Your task to perform on an android device: toggle data saver in the chrome app Image 0: 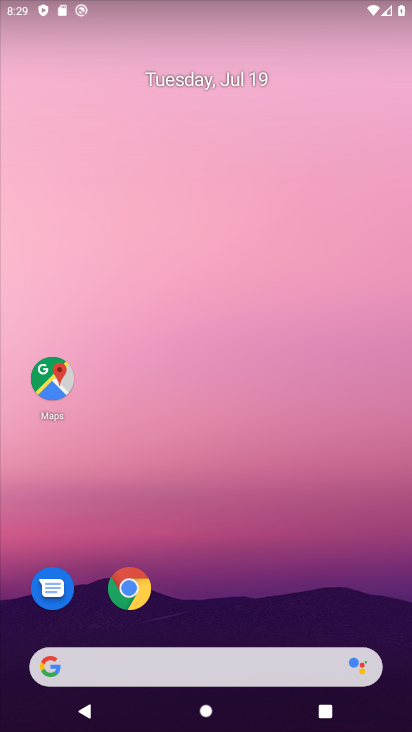
Step 0: drag from (303, 594) to (342, 192)
Your task to perform on an android device: toggle data saver in the chrome app Image 1: 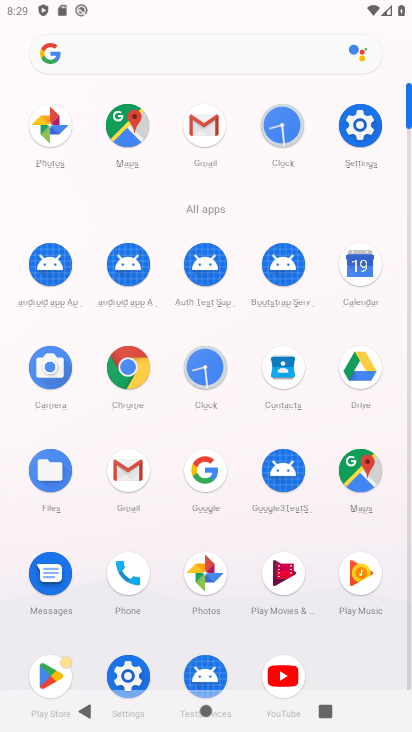
Step 1: click (139, 361)
Your task to perform on an android device: toggle data saver in the chrome app Image 2: 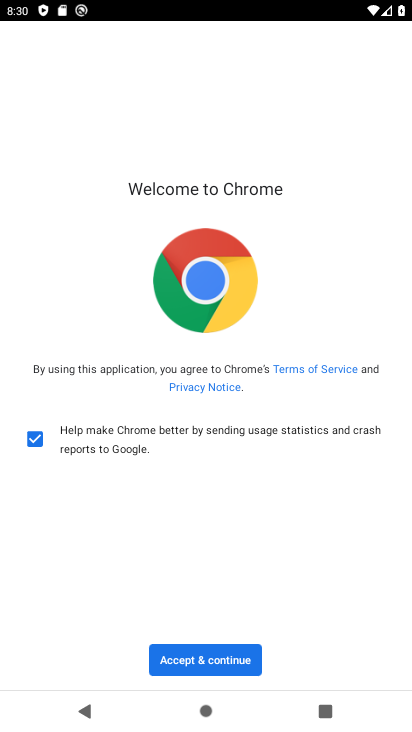
Step 2: click (228, 656)
Your task to perform on an android device: toggle data saver in the chrome app Image 3: 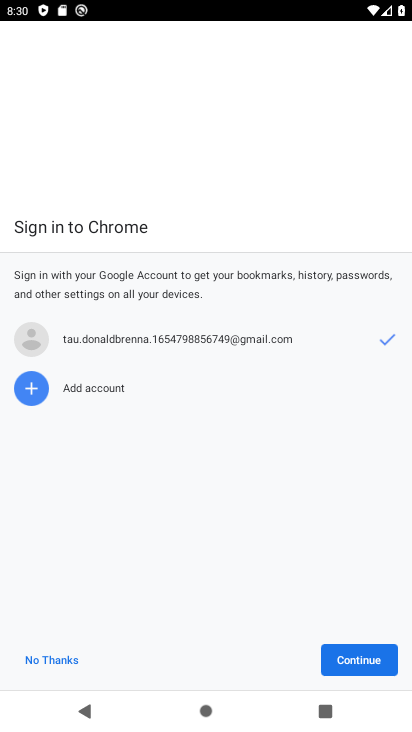
Step 3: click (47, 653)
Your task to perform on an android device: toggle data saver in the chrome app Image 4: 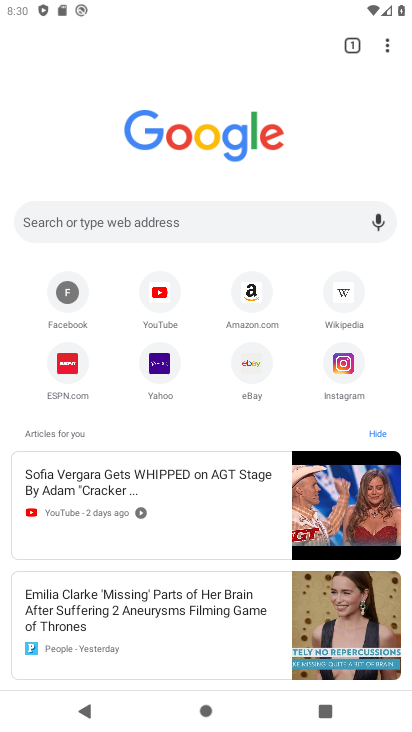
Step 4: drag from (384, 43) to (209, 379)
Your task to perform on an android device: toggle data saver in the chrome app Image 5: 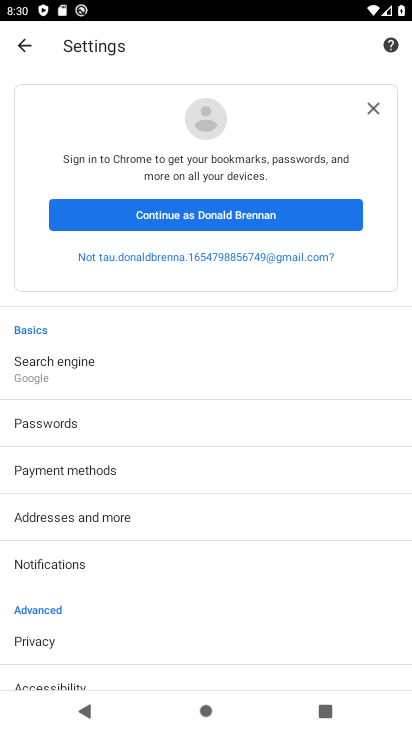
Step 5: drag from (169, 614) to (162, 239)
Your task to perform on an android device: toggle data saver in the chrome app Image 6: 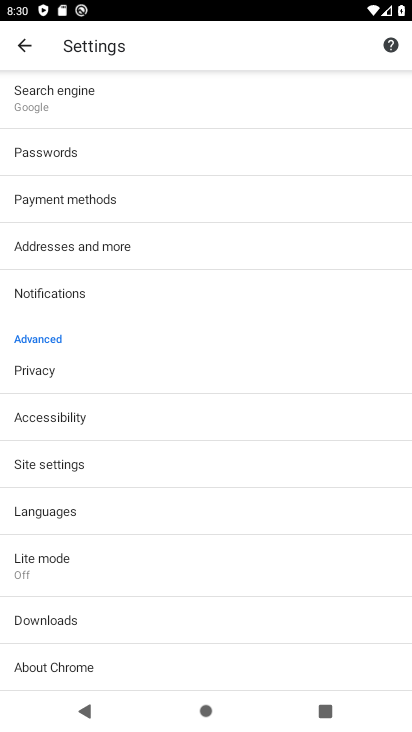
Step 6: click (74, 566)
Your task to perform on an android device: toggle data saver in the chrome app Image 7: 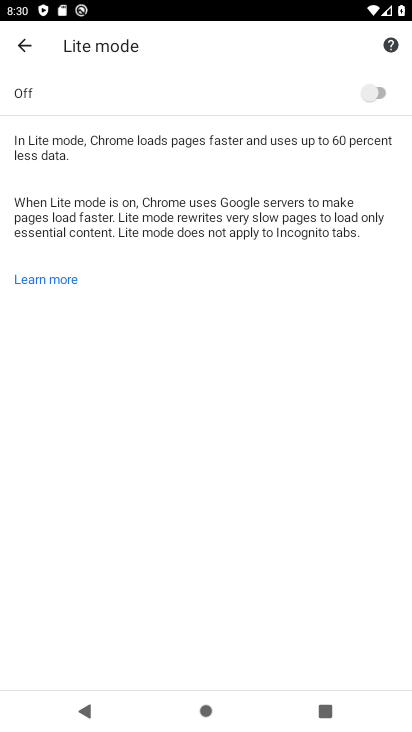
Step 7: click (362, 98)
Your task to perform on an android device: toggle data saver in the chrome app Image 8: 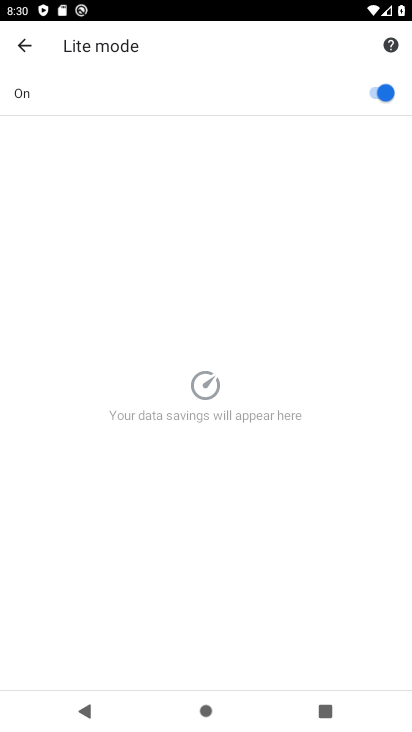
Step 8: task complete